Your task to perform on an android device: Open Google Chrome Image 0: 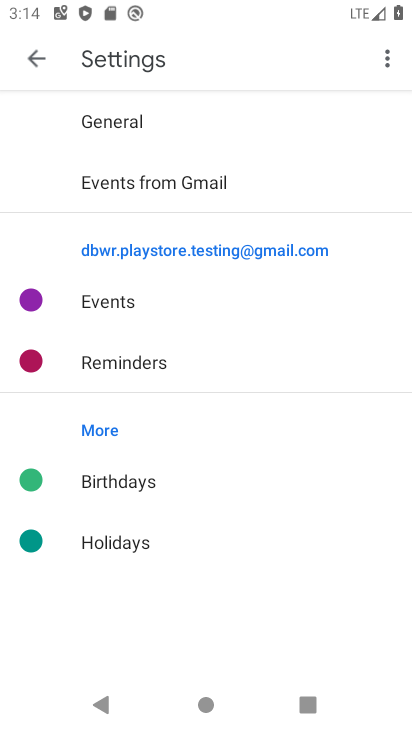
Step 0: drag from (131, 522) to (211, 164)
Your task to perform on an android device: Open Google Chrome Image 1: 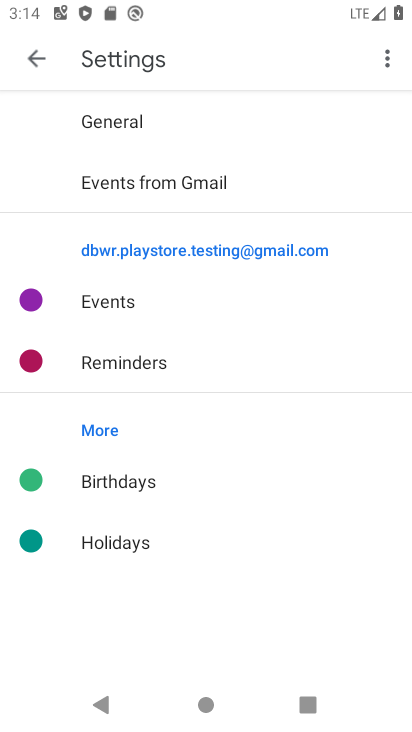
Step 1: drag from (262, 620) to (300, 297)
Your task to perform on an android device: Open Google Chrome Image 2: 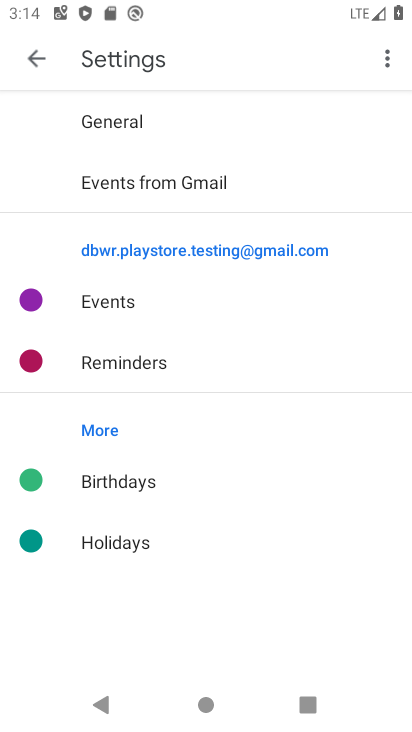
Step 2: press home button
Your task to perform on an android device: Open Google Chrome Image 3: 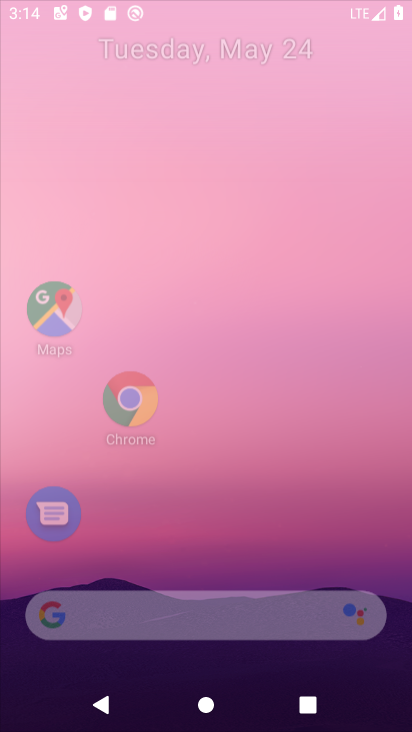
Step 3: drag from (255, 559) to (289, 2)
Your task to perform on an android device: Open Google Chrome Image 4: 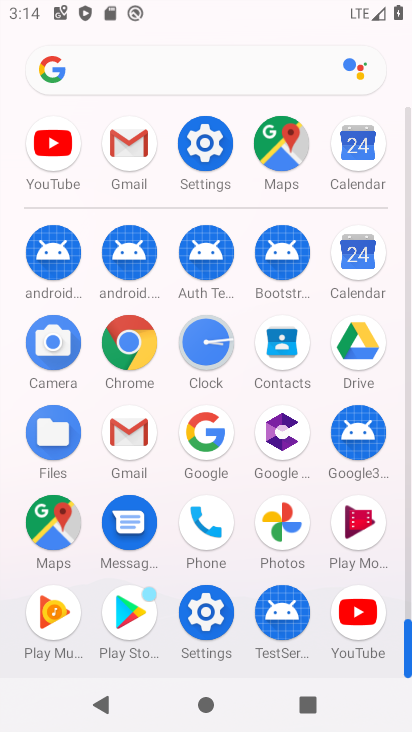
Step 4: click (134, 344)
Your task to perform on an android device: Open Google Chrome Image 5: 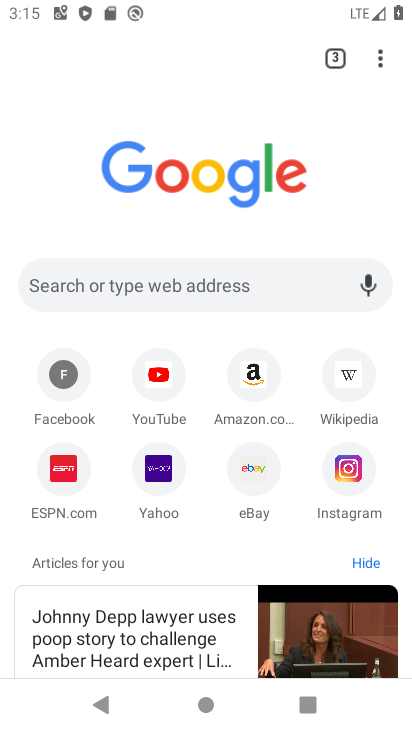
Step 5: click (380, 69)
Your task to perform on an android device: Open Google Chrome Image 6: 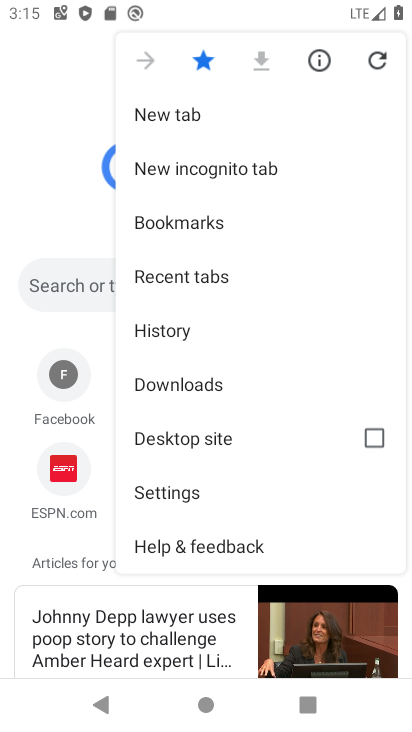
Step 6: task complete